Your task to perform on an android device: change the upload size in google photos Image 0: 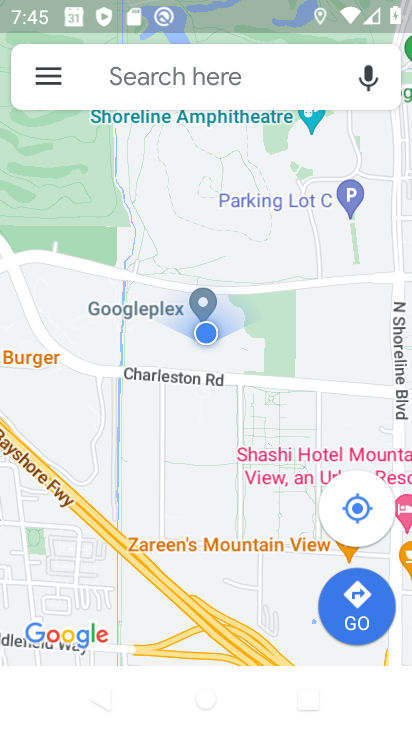
Step 0: press back button
Your task to perform on an android device: change the upload size in google photos Image 1: 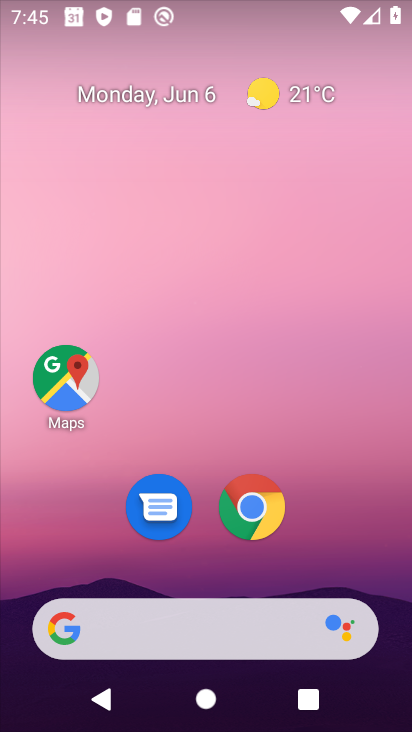
Step 1: drag from (211, 578) to (171, 35)
Your task to perform on an android device: change the upload size in google photos Image 2: 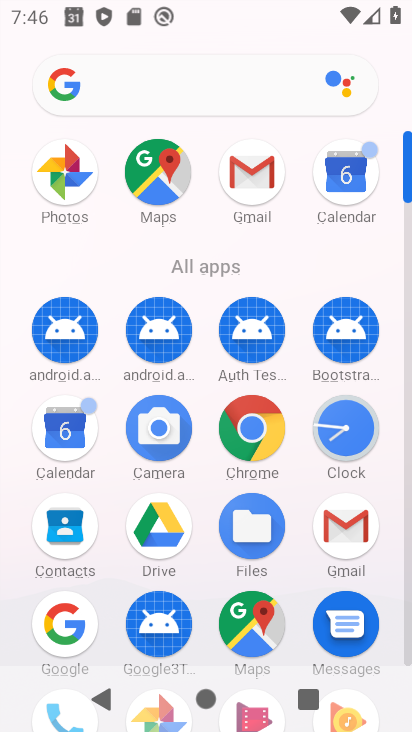
Step 2: drag from (285, 609) to (359, 138)
Your task to perform on an android device: change the upload size in google photos Image 3: 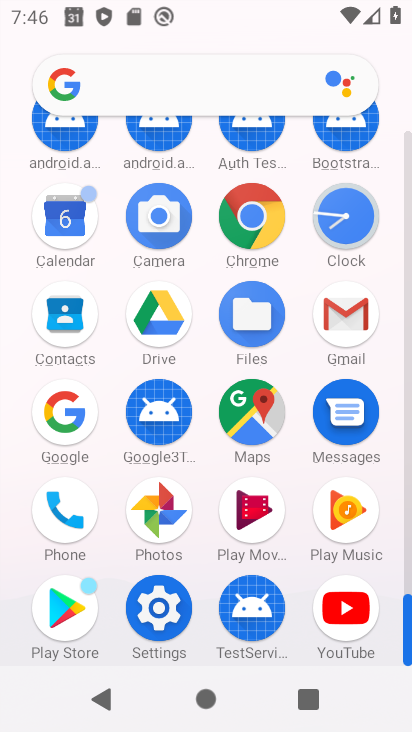
Step 3: click (159, 526)
Your task to perform on an android device: change the upload size in google photos Image 4: 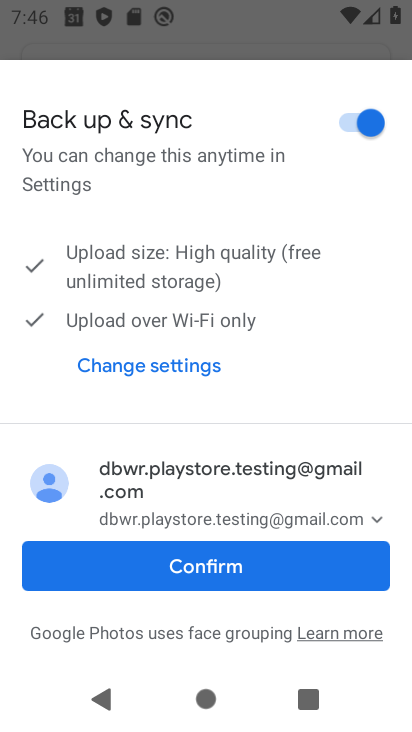
Step 4: click (206, 602)
Your task to perform on an android device: change the upload size in google photos Image 5: 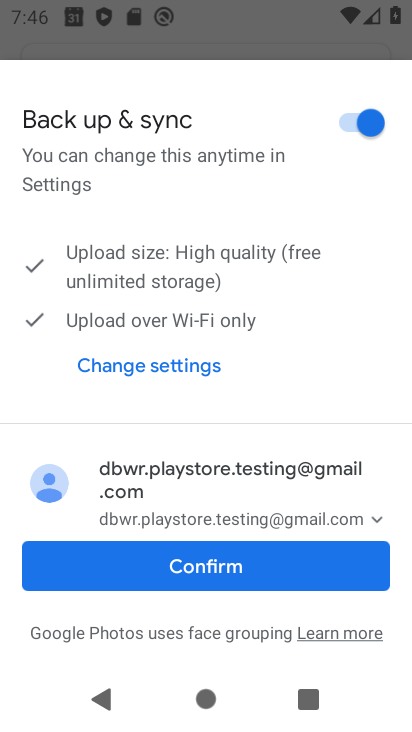
Step 5: click (205, 570)
Your task to perform on an android device: change the upload size in google photos Image 6: 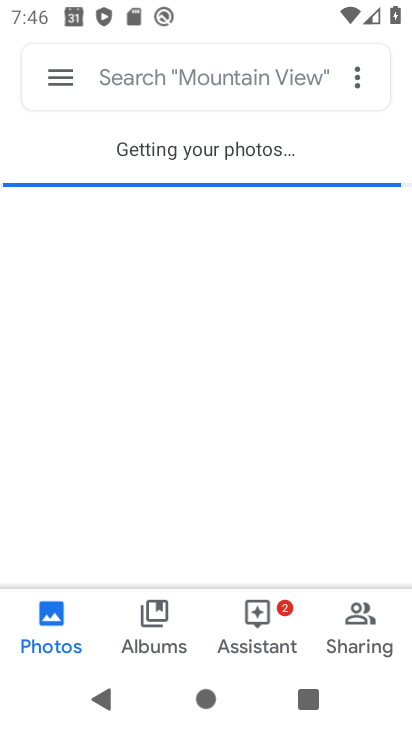
Step 6: click (57, 81)
Your task to perform on an android device: change the upload size in google photos Image 7: 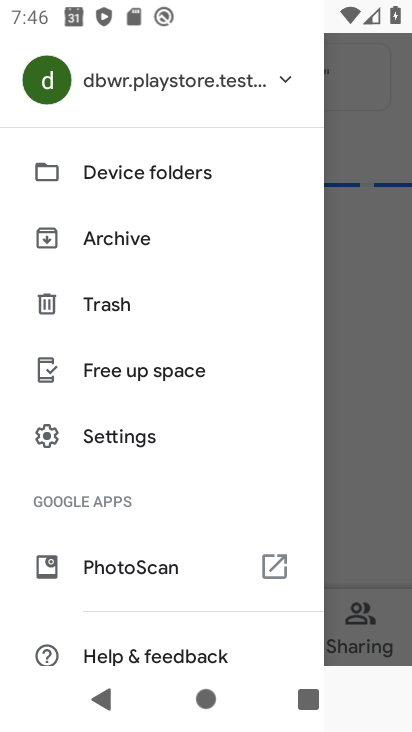
Step 7: click (128, 444)
Your task to perform on an android device: change the upload size in google photos Image 8: 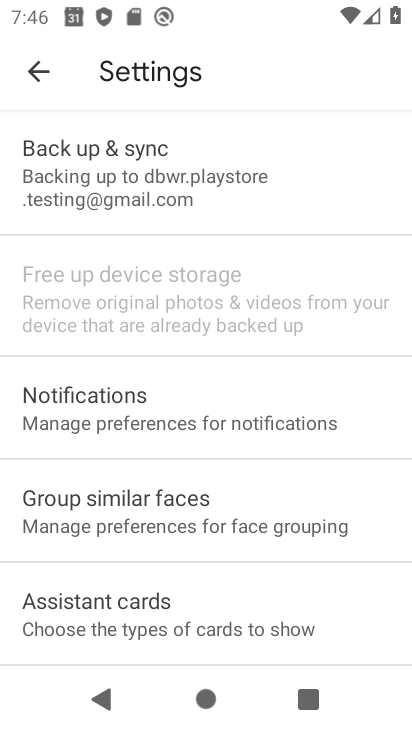
Step 8: click (110, 167)
Your task to perform on an android device: change the upload size in google photos Image 9: 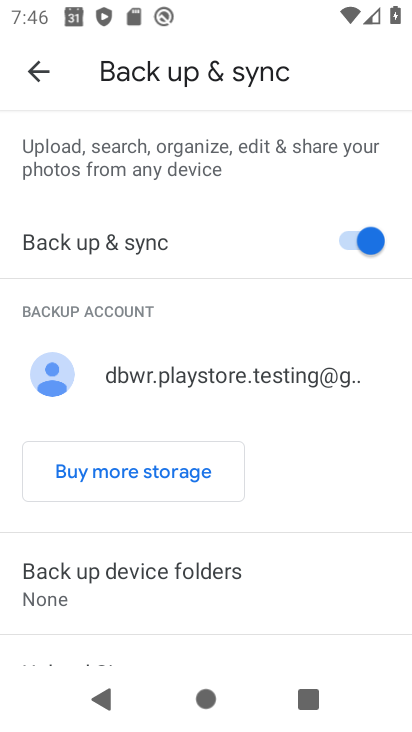
Step 9: drag from (130, 600) to (171, 360)
Your task to perform on an android device: change the upload size in google photos Image 10: 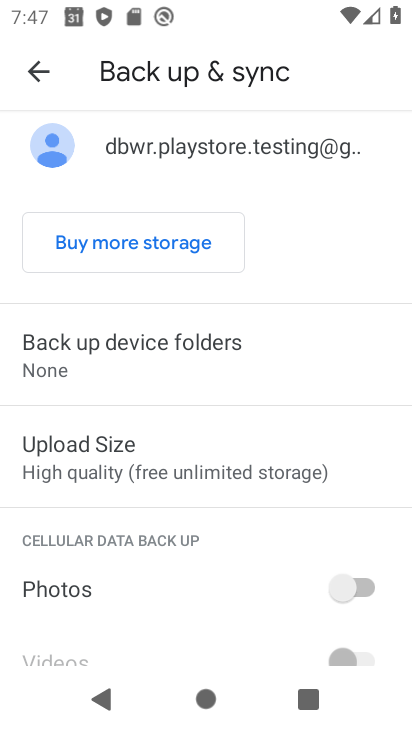
Step 10: click (161, 476)
Your task to perform on an android device: change the upload size in google photos Image 11: 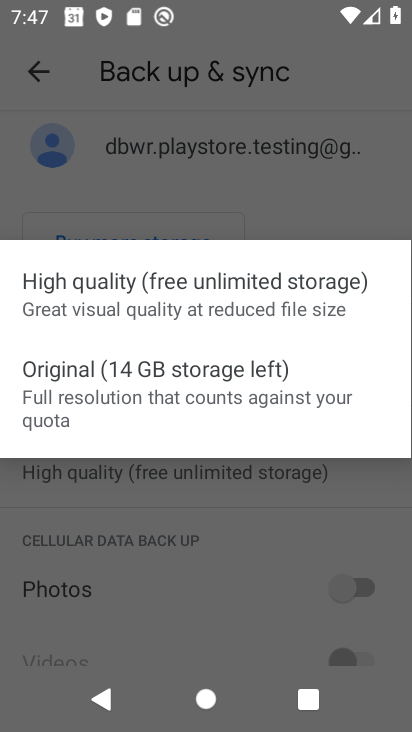
Step 11: click (138, 378)
Your task to perform on an android device: change the upload size in google photos Image 12: 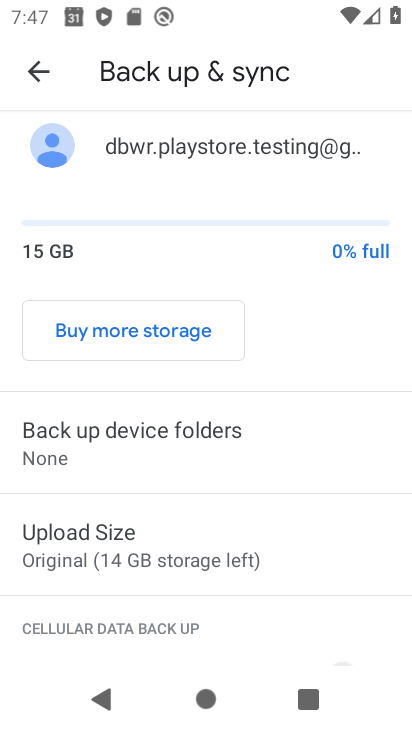
Step 12: task complete